Your task to perform on an android device: add a contact in the contacts app Image 0: 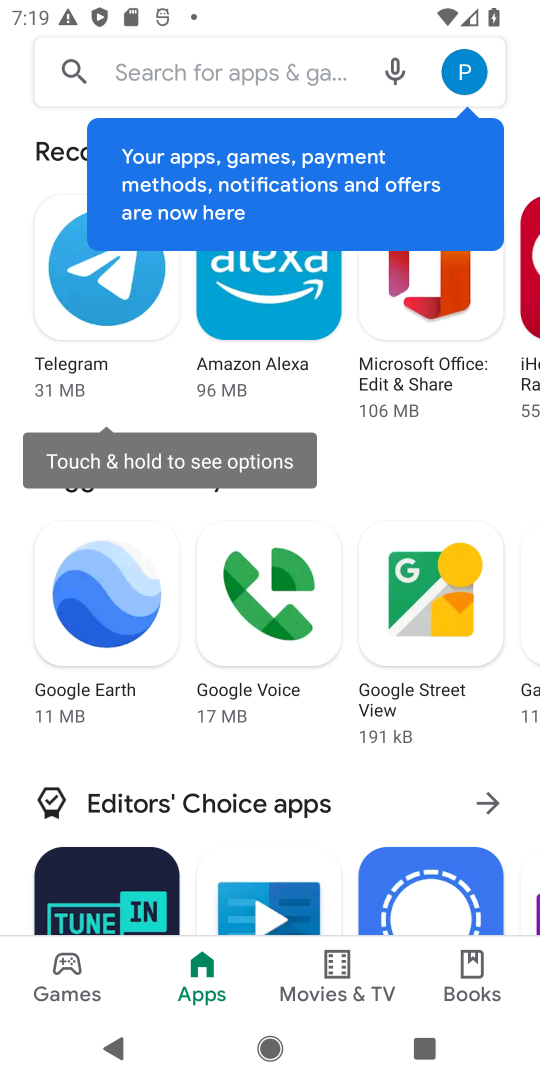
Step 0: press home button
Your task to perform on an android device: add a contact in the contacts app Image 1: 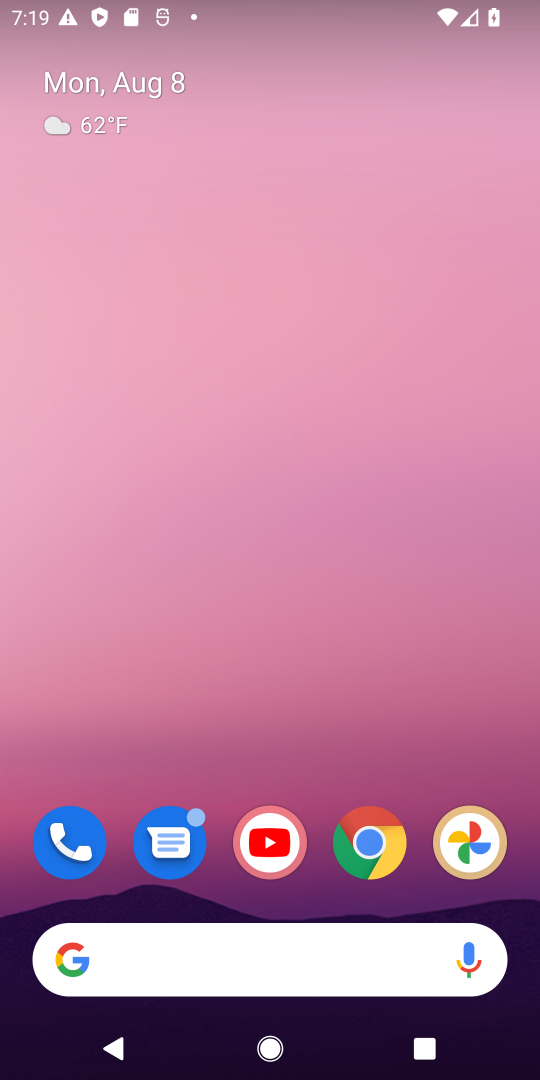
Step 1: drag from (254, 720) to (242, 0)
Your task to perform on an android device: add a contact in the contacts app Image 2: 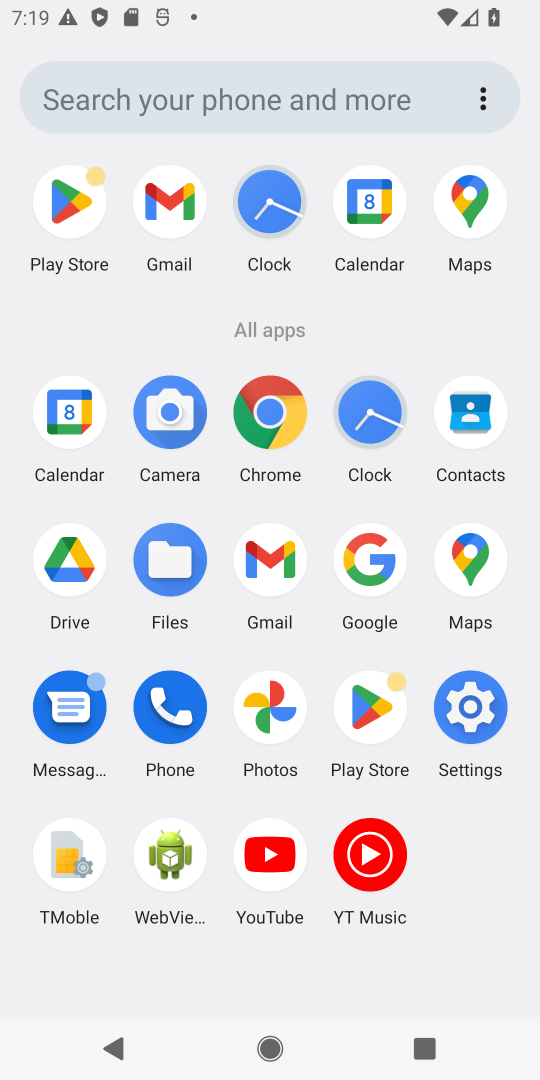
Step 2: click (475, 397)
Your task to perform on an android device: add a contact in the contacts app Image 3: 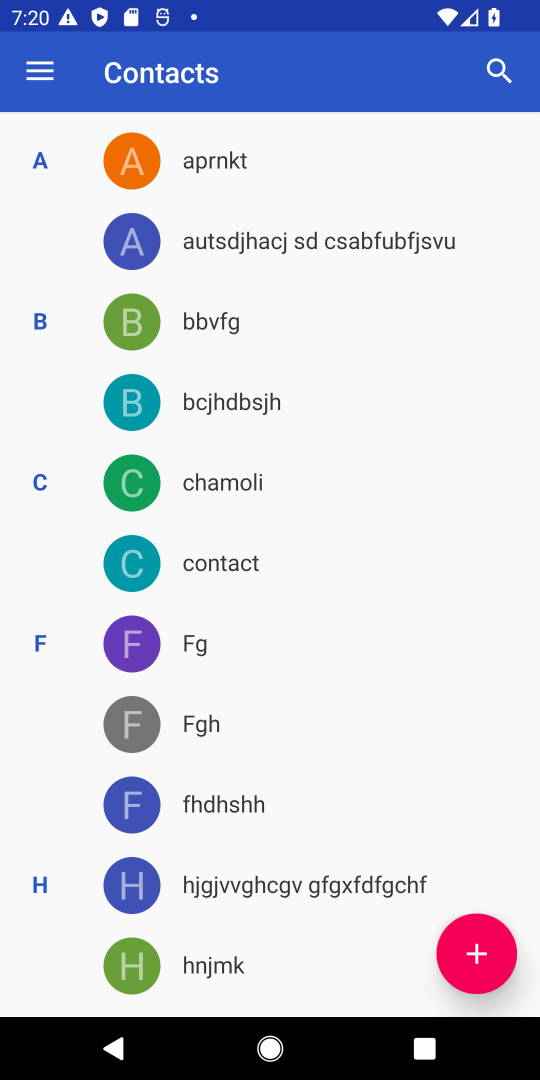
Step 3: type "Abba"
Your task to perform on an android device: add a contact in the contacts app Image 4: 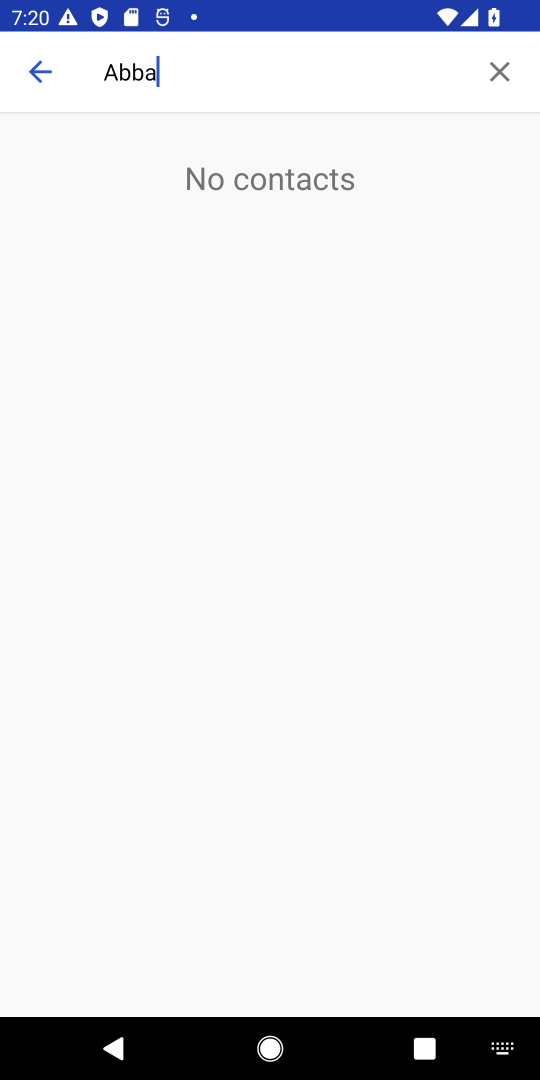
Step 4: click (507, 72)
Your task to perform on an android device: add a contact in the contacts app Image 5: 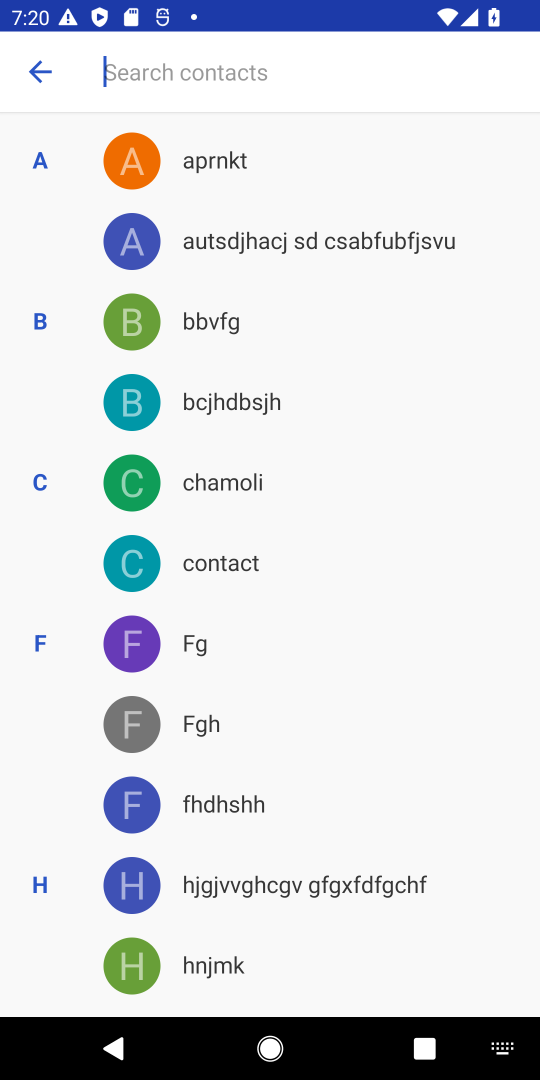
Step 5: drag from (395, 782) to (514, 235)
Your task to perform on an android device: add a contact in the contacts app Image 6: 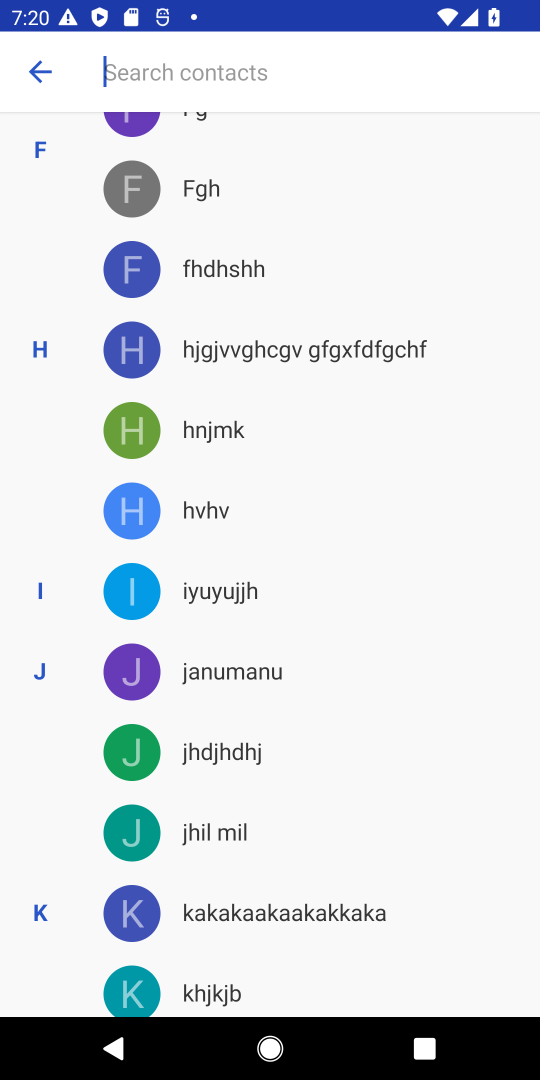
Step 6: drag from (384, 942) to (451, 131)
Your task to perform on an android device: add a contact in the contacts app Image 7: 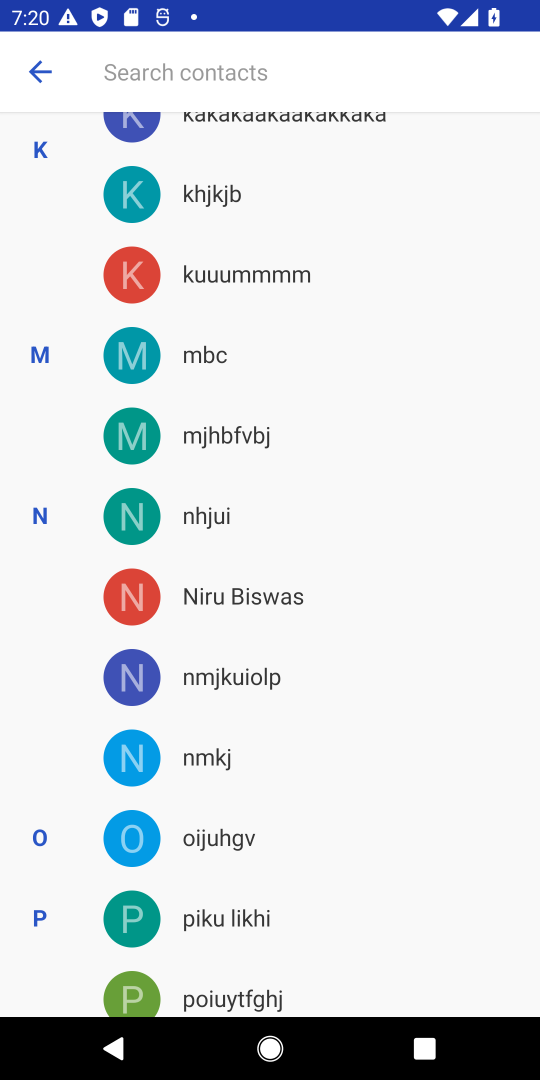
Step 7: click (36, 58)
Your task to perform on an android device: add a contact in the contacts app Image 8: 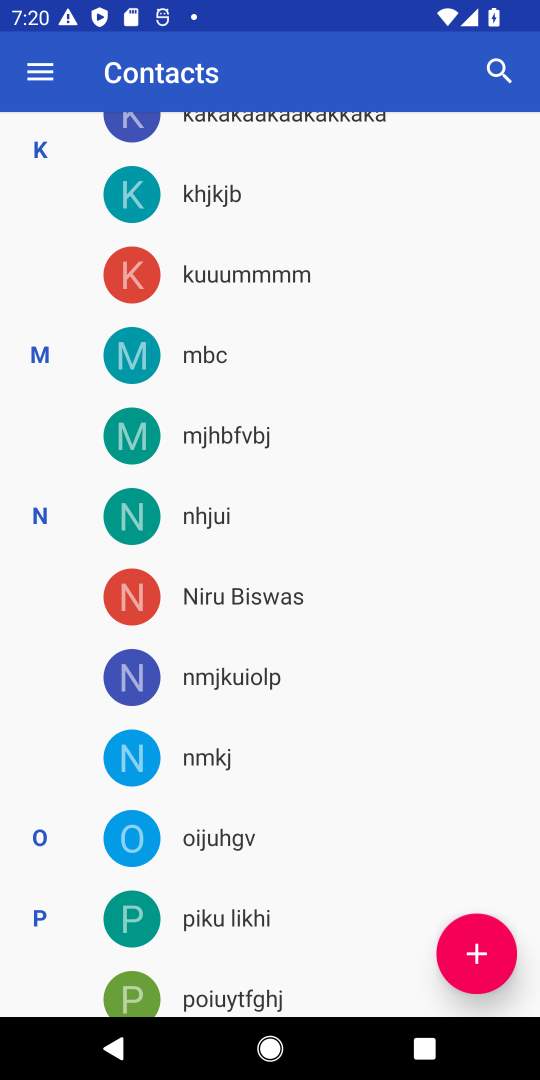
Step 8: click (453, 944)
Your task to perform on an android device: add a contact in the contacts app Image 9: 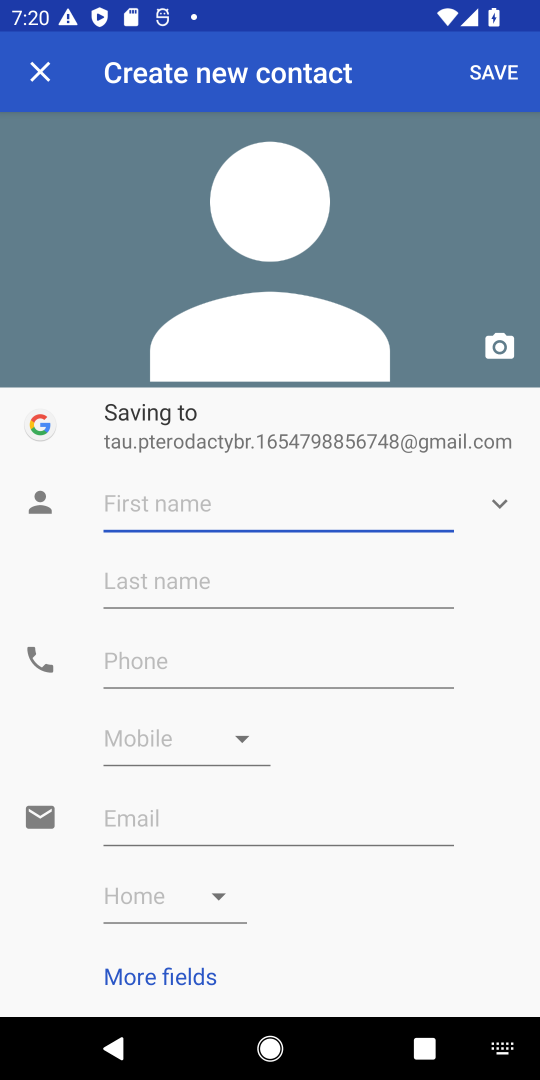
Step 9: type "Abba"
Your task to perform on an android device: add a contact in the contacts app Image 10: 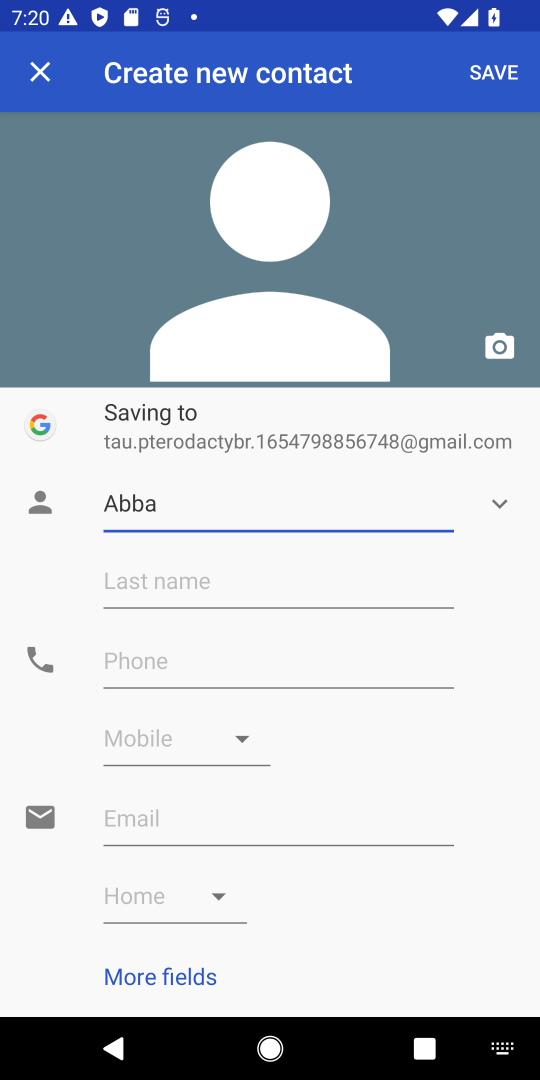
Step 10: click (363, 670)
Your task to perform on an android device: add a contact in the contacts app Image 11: 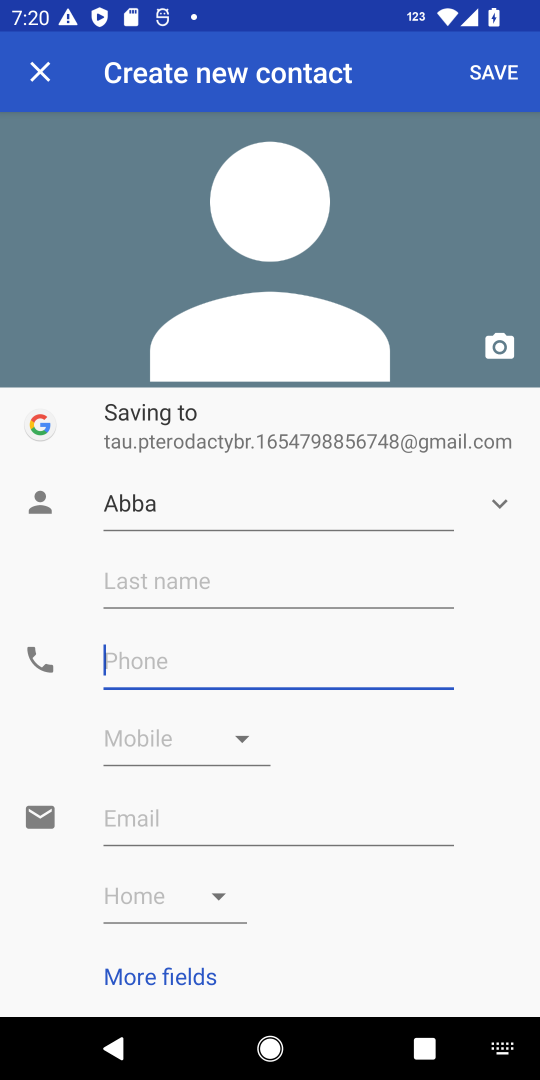
Step 11: type "+9199999664422"
Your task to perform on an android device: add a contact in the contacts app Image 12: 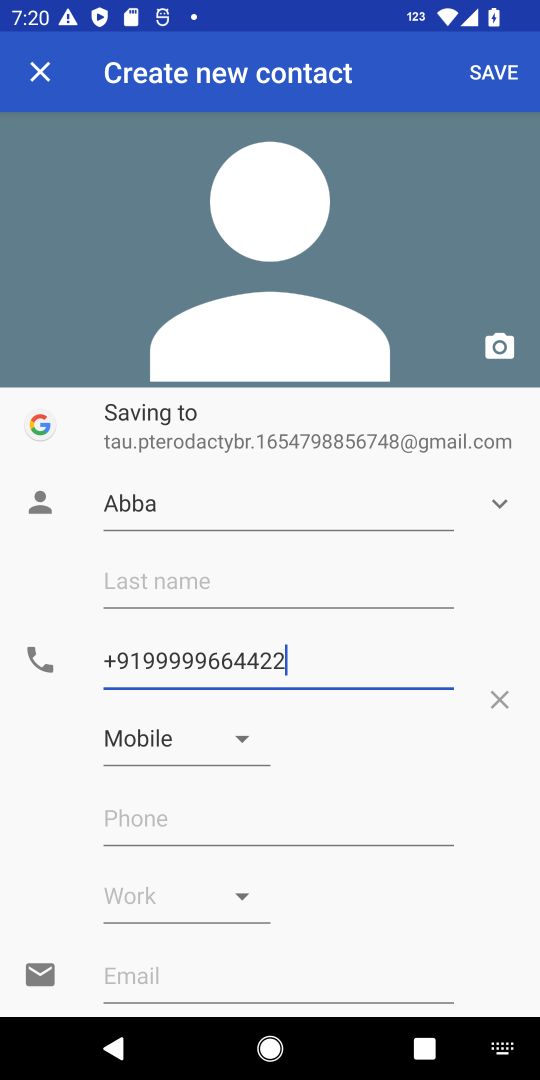
Step 12: click (495, 68)
Your task to perform on an android device: add a contact in the contacts app Image 13: 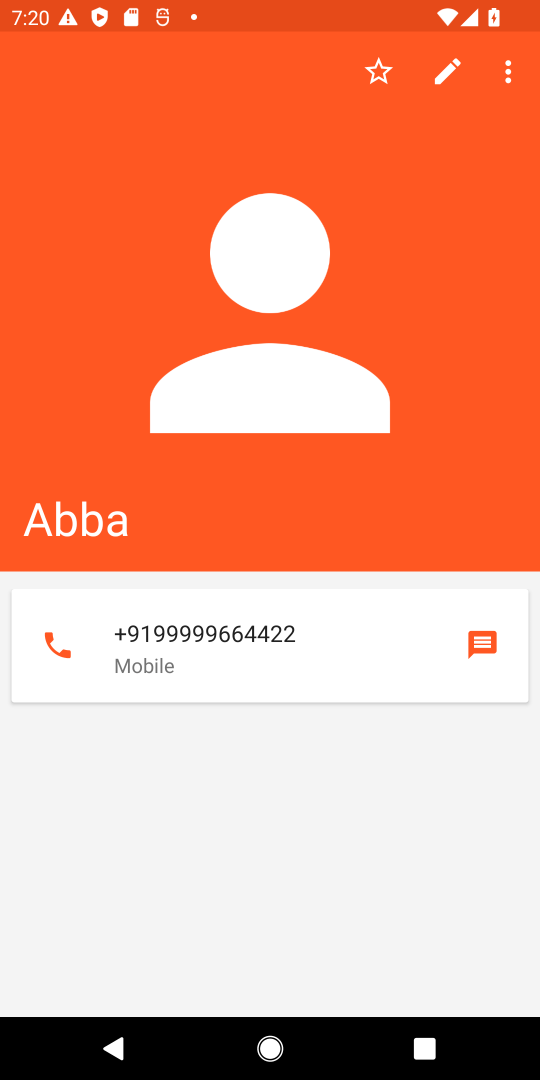
Step 13: task complete